Your task to perform on an android device: toggle location history Image 0: 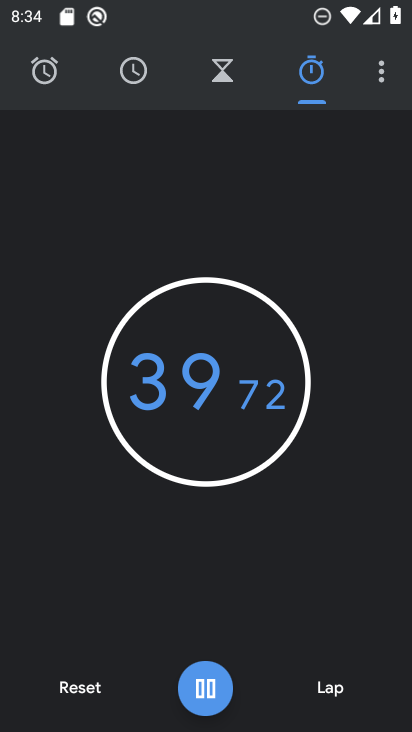
Step 0: press home button
Your task to perform on an android device: toggle location history Image 1: 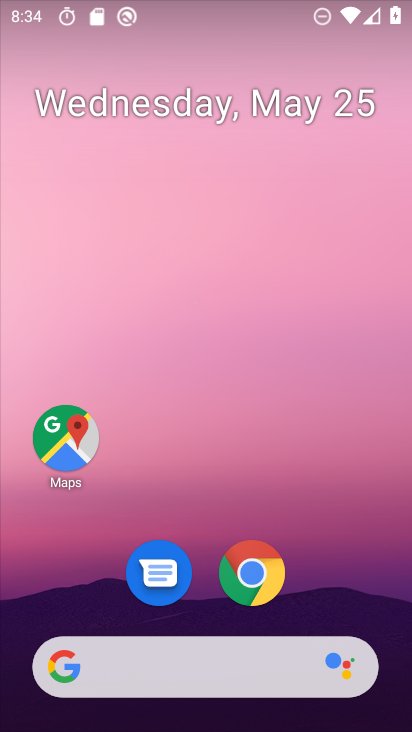
Step 1: drag from (388, 558) to (368, 264)
Your task to perform on an android device: toggle location history Image 2: 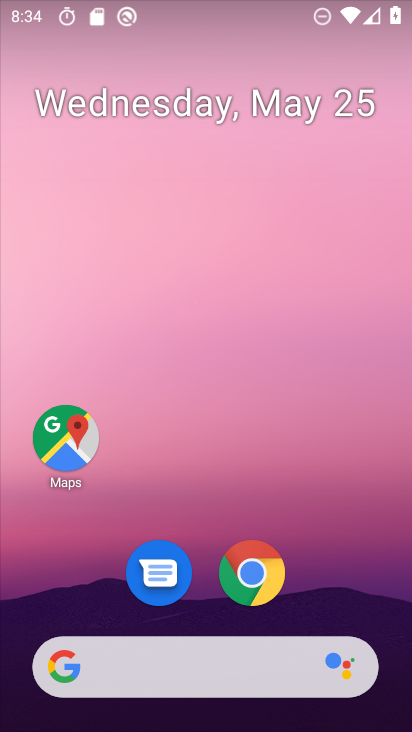
Step 2: drag from (390, 674) to (337, 128)
Your task to perform on an android device: toggle location history Image 3: 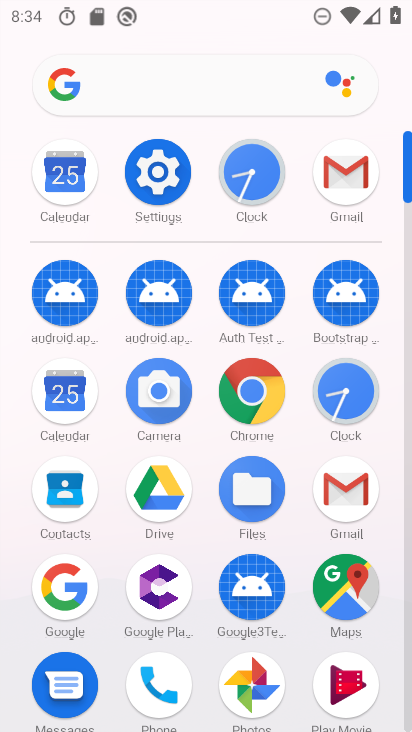
Step 3: click (155, 164)
Your task to perform on an android device: toggle location history Image 4: 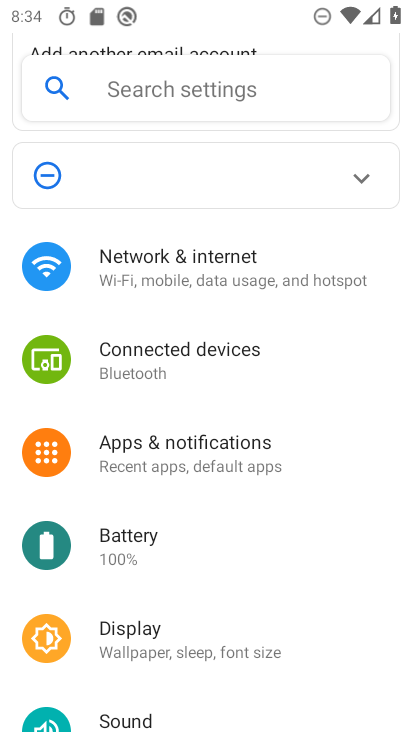
Step 4: drag from (241, 708) to (265, 332)
Your task to perform on an android device: toggle location history Image 5: 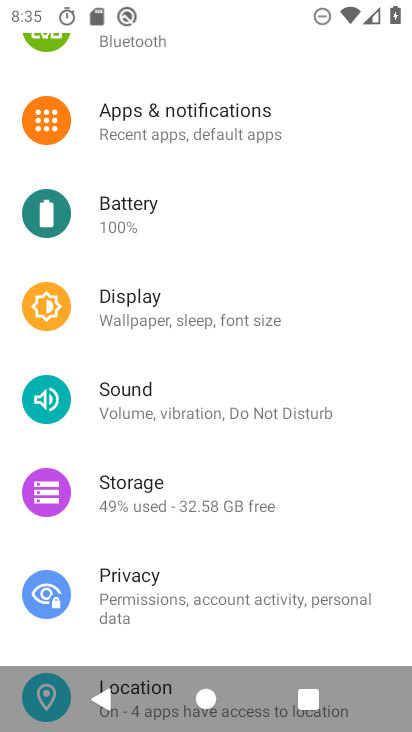
Step 5: drag from (271, 632) to (288, 363)
Your task to perform on an android device: toggle location history Image 6: 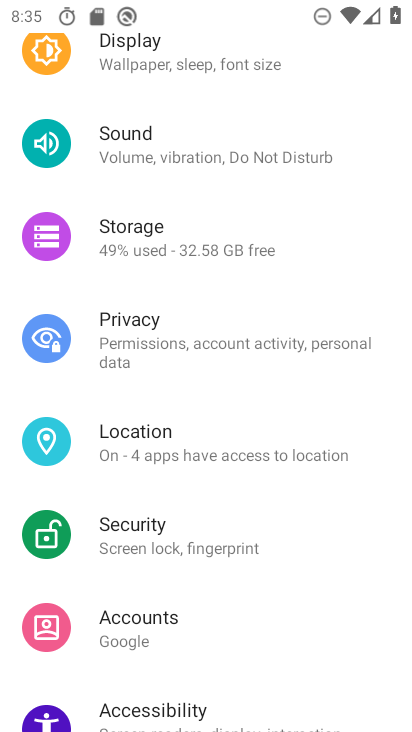
Step 6: click (117, 438)
Your task to perform on an android device: toggle location history Image 7: 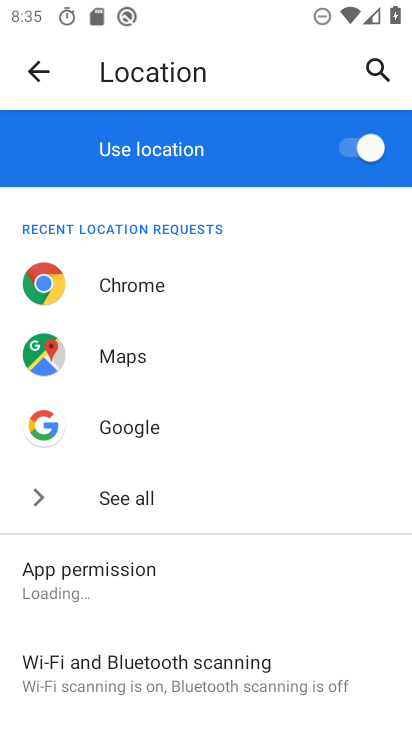
Step 7: drag from (342, 638) to (345, 288)
Your task to perform on an android device: toggle location history Image 8: 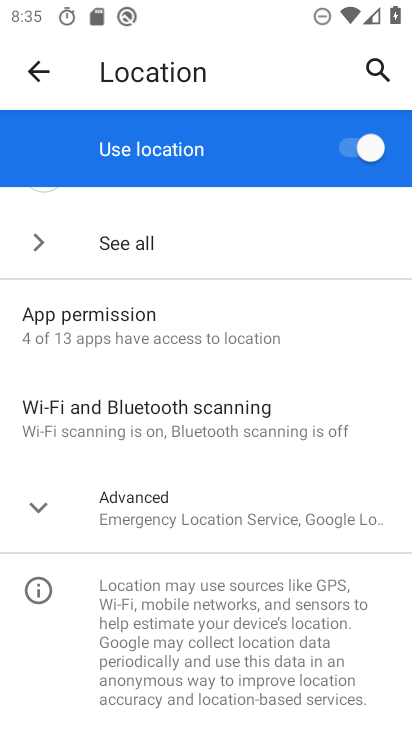
Step 8: click (35, 508)
Your task to perform on an android device: toggle location history Image 9: 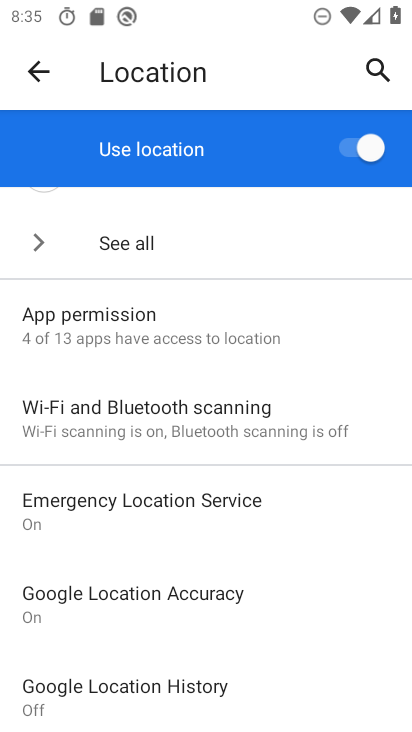
Step 9: drag from (324, 693) to (309, 397)
Your task to perform on an android device: toggle location history Image 10: 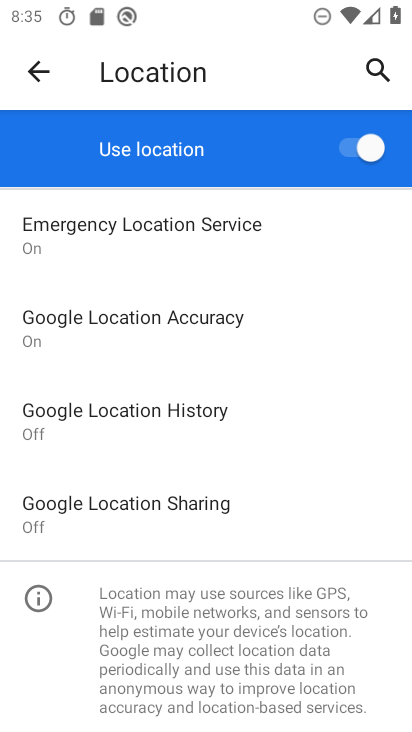
Step 10: click (78, 404)
Your task to perform on an android device: toggle location history Image 11: 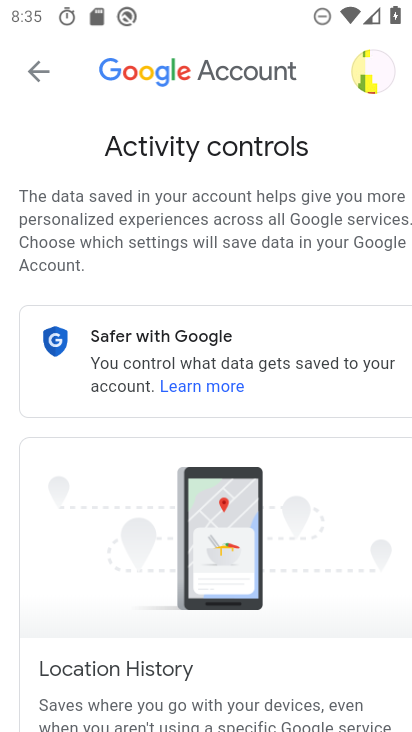
Step 11: drag from (147, 648) to (171, 275)
Your task to perform on an android device: toggle location history Image 12: 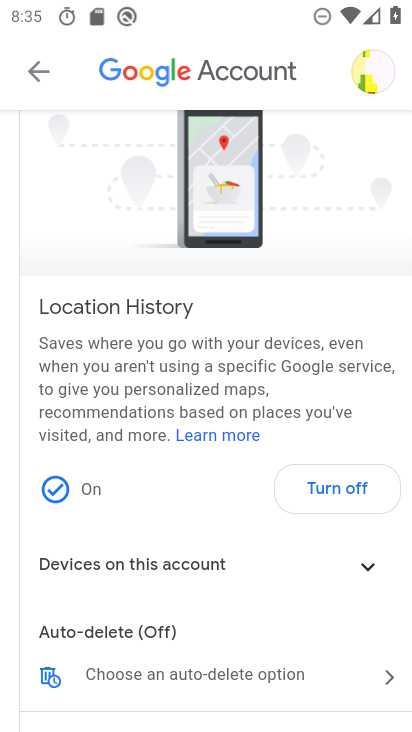
Step 12: click (323, 491)
Your task to perform on an android device: toggle location history Image 13: 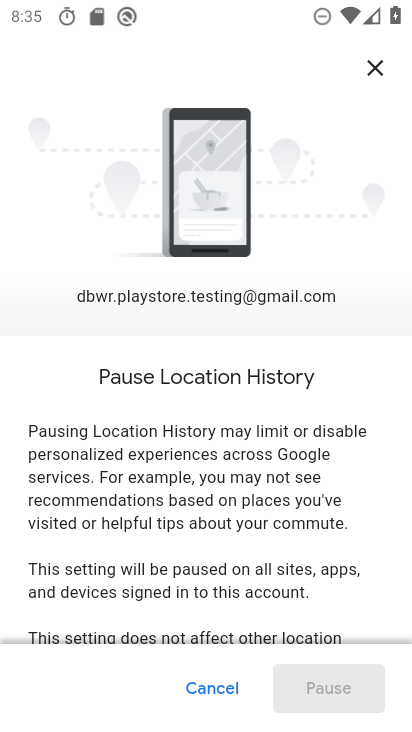
Step 13: drag from (225, 574) to (246, 344)
Your task to perform on an android device: toggle location history Image 14: 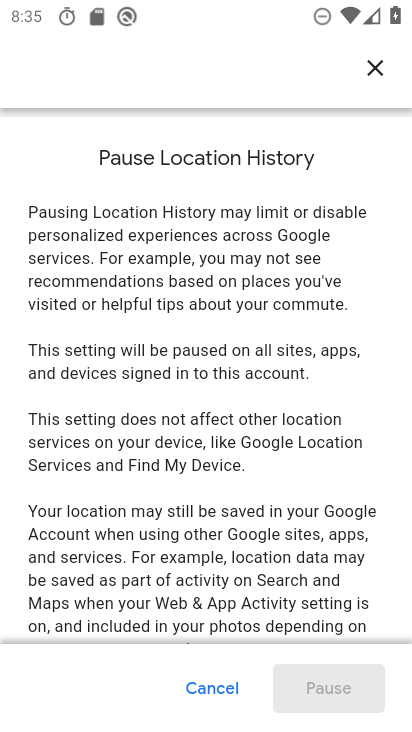
Step 14: drag from (262, 307) to (260, 591)
Your task to perform on an android device: toggle location history Image 15: 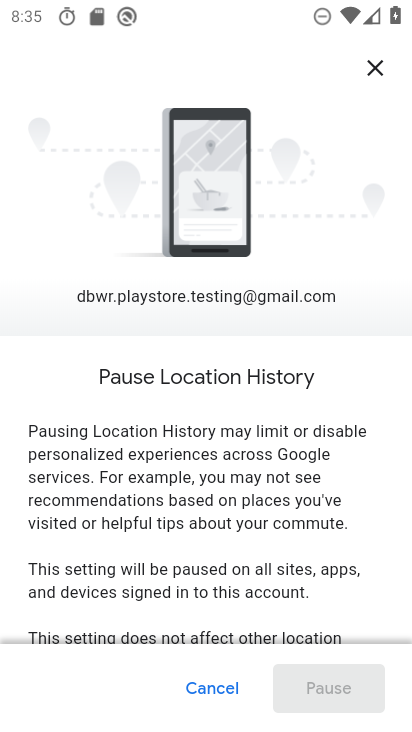
Step 15: click (224, 687)
Your task to perform on an android device: toggle location history Image 16: 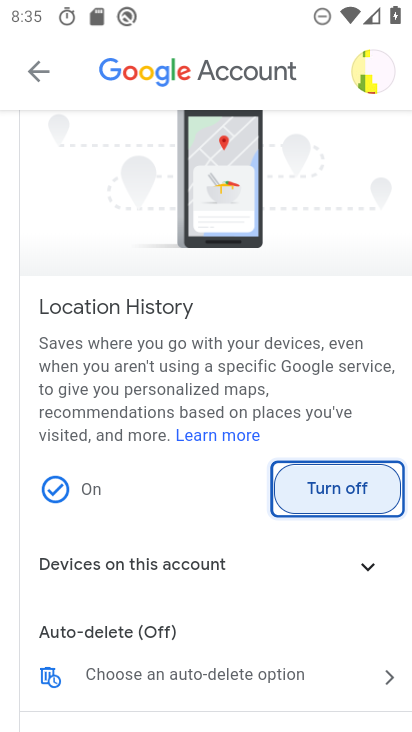
Step 16: click (311, 482)
Your task to perform on an android device: toggle location history Image 17: 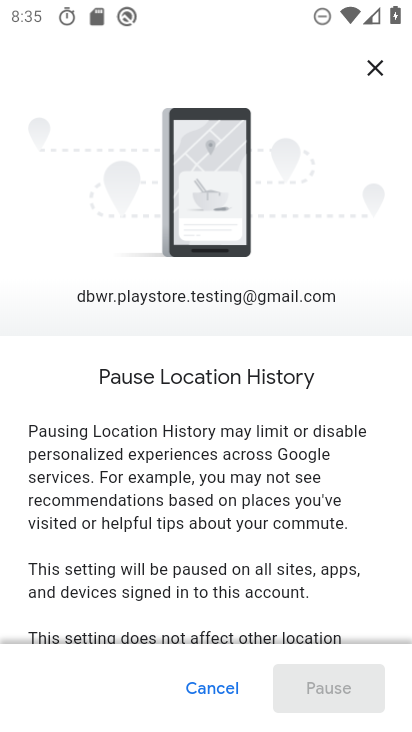
Step 17: click (215, 688)
Your task to perform on an android device: toggle location history Image 18: 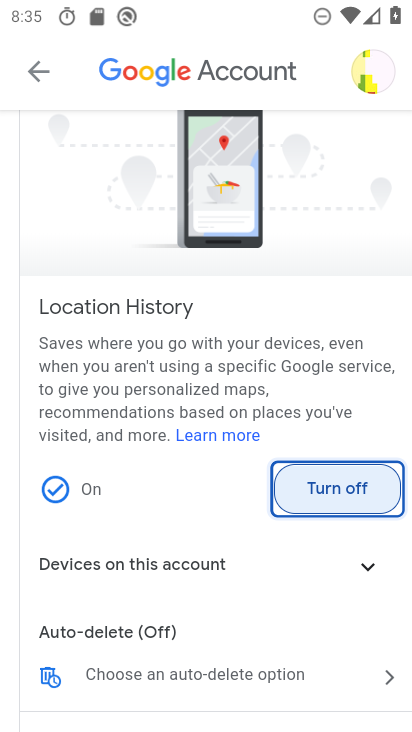
Step 18: click (71, 484)
Your task to perform on an android device: toggle location history Image 19: 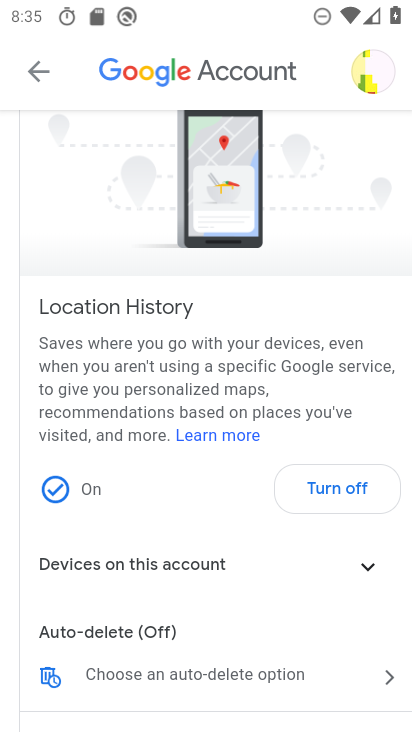
Step 19: click (72, 488)
Your task to perform on an android device: toggle location history Image 20: 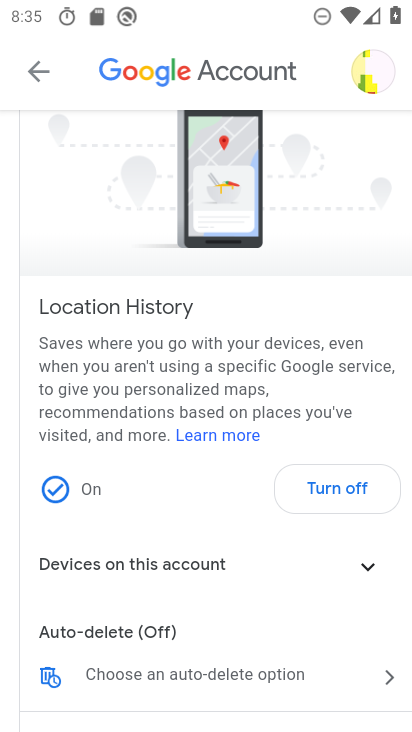
Step 20: drag from (248, 602) to (267, 339)
Your task to perform on an android device: toggle location history Image 21: 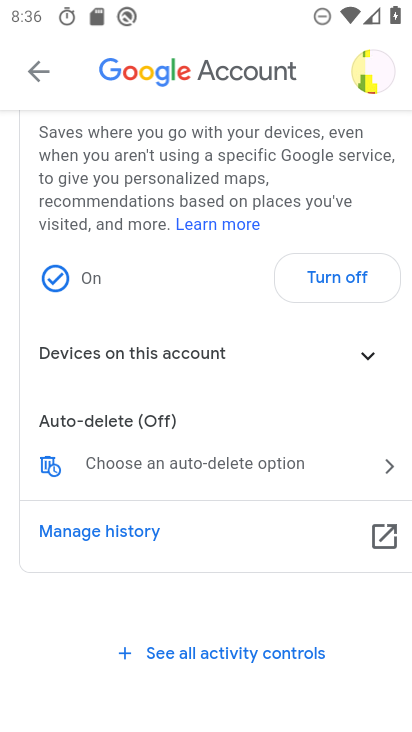
Step 21: click (338, 295)
Your task to perform on an android device: toggle location history Image 22: 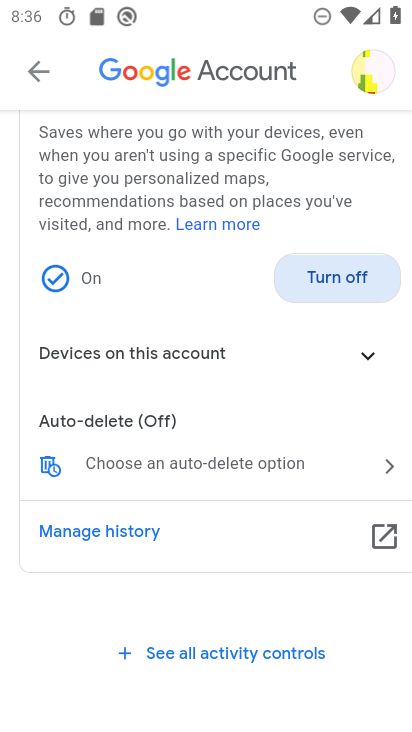
Step 22: click (331, 280)
Your task to perform on an android device: toggle location history Image 23: 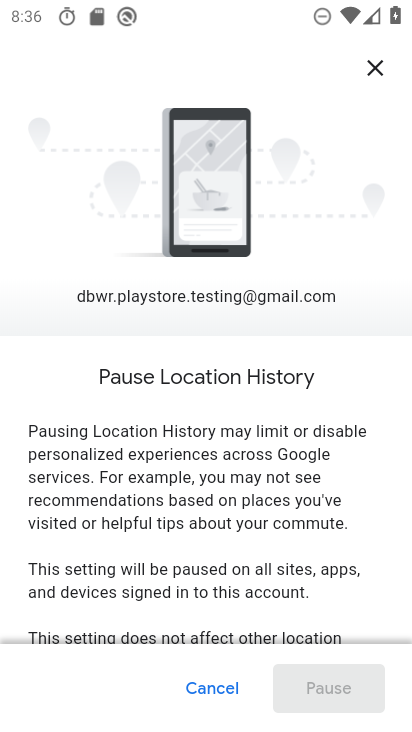
Step 23: drag from (225, 608) to (253, 329)
Your task to perform on an android device: toggle location history Image 24: 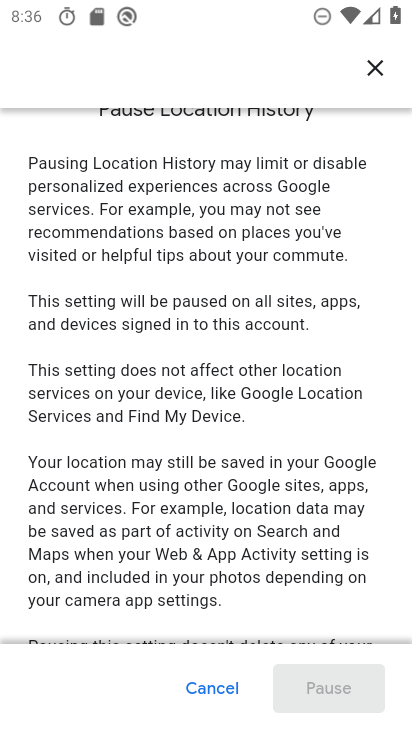
Step 24: drag from (260, 625) to (277, 229)
Your task to perform on an android device: toggle location history Image 25: 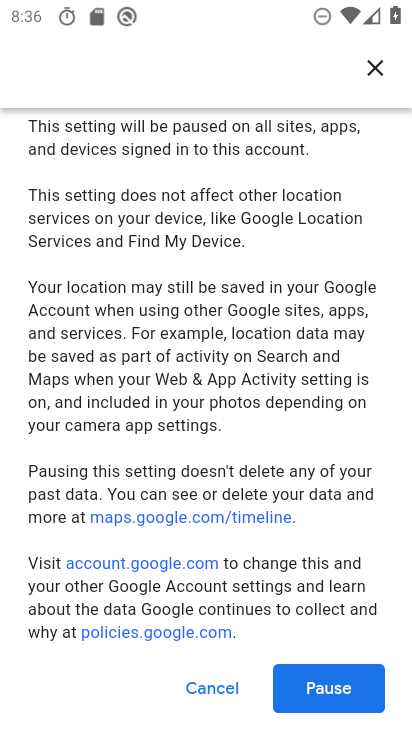
Step 25: click (317, 687)
Your task to perform on an android device: toggle location history Image 26: 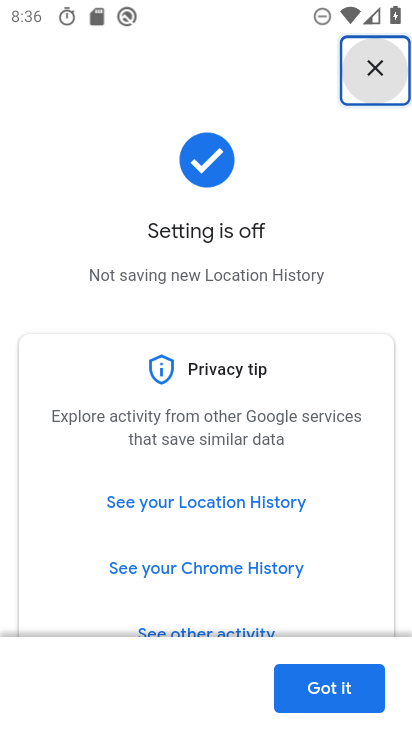
Step 26: click (314, 693)
Your task to perform on an android device: toggle location history Image 27: 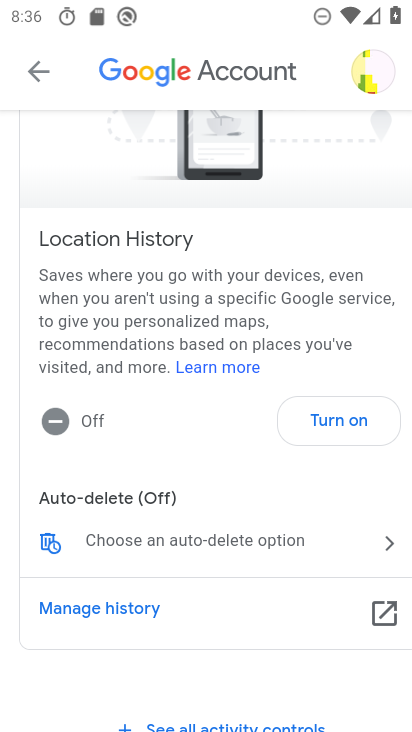
Step 27: click (324, 716)
Your task to perform on an android device: toggle location history Image 28: 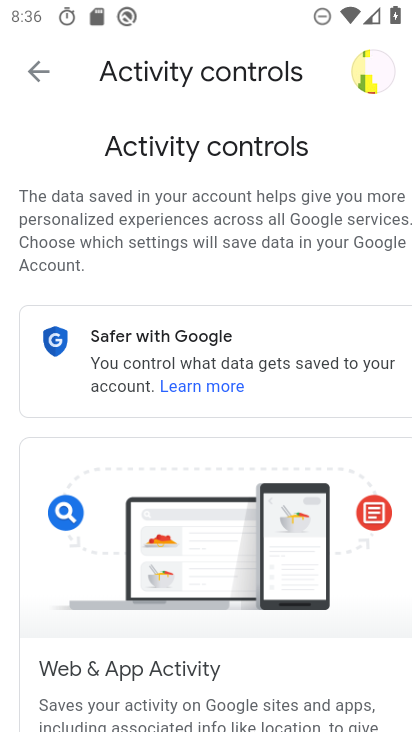
Step 28: task complete